Your task to perform on an android device: clear all cookies in the chrome app Image 0: 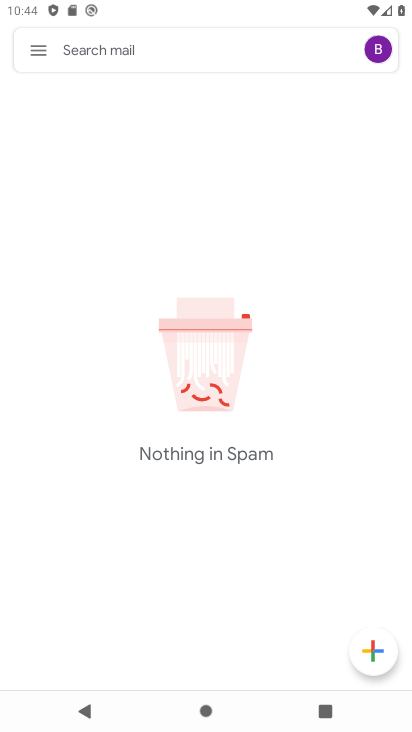
Step 0: press home button
Your task to perform on an android device: clear all cookies in the chrome app Image 1: 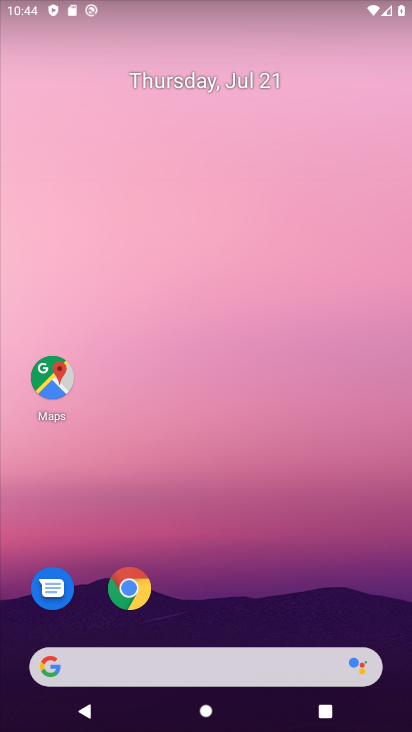
Step 1: drag from (264, 559) to (323, 0)
Your task to perform on an android device: clear all cookies in the chrome app Image 2: 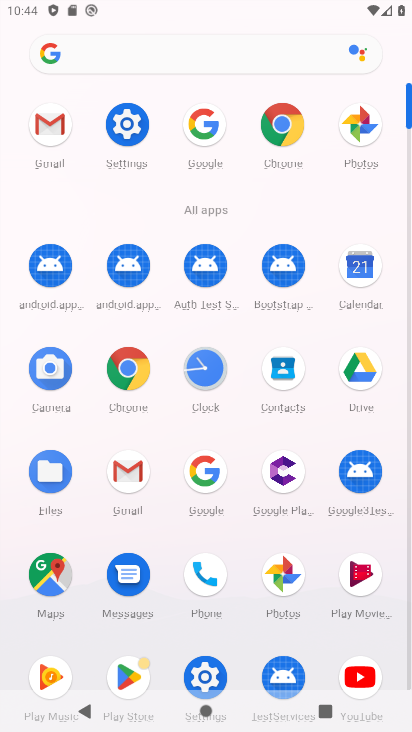
Step 2: click (291, 118)
Your task to perform on an android device: clear all cookies in the chrome app Image 3: 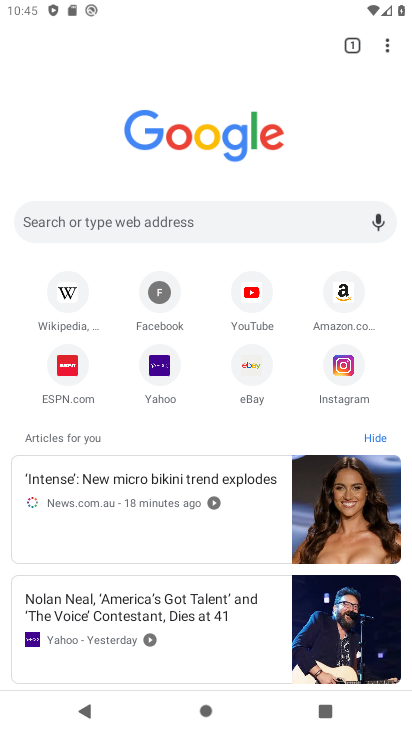
Step 3: drag from (382, 54) to (276, 273)
Your task to perform on an android device: clear all cookies in the chrome app Image 4: 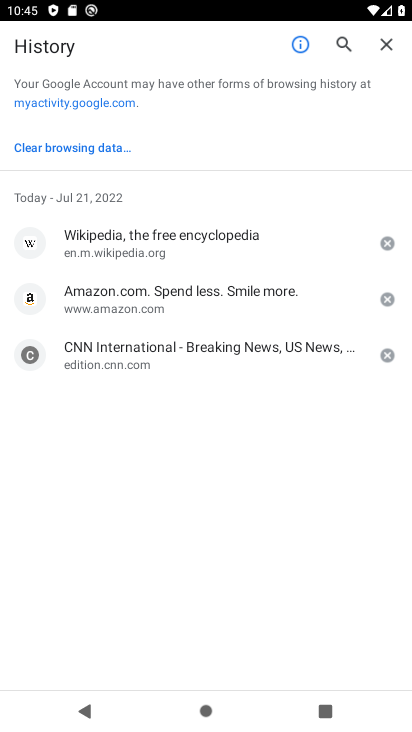
Step 4: click (80, 142)
Your task to perform on an android device: clear all cookies in the chrome app Image 5: 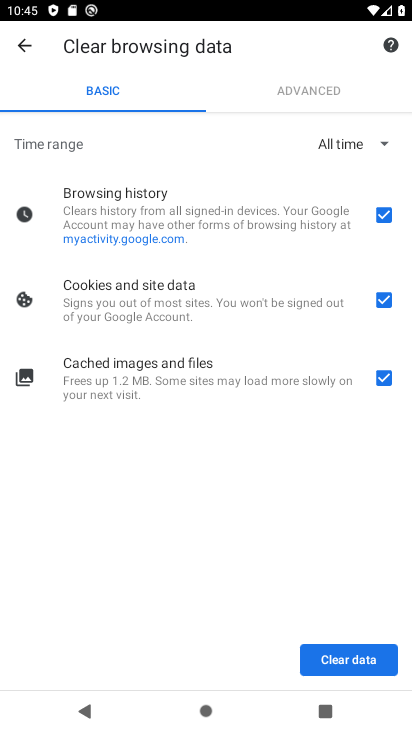
Step 5: click (379, 373)
Your task to perform on an android device: clear all cookies in the chrome app Image 6: 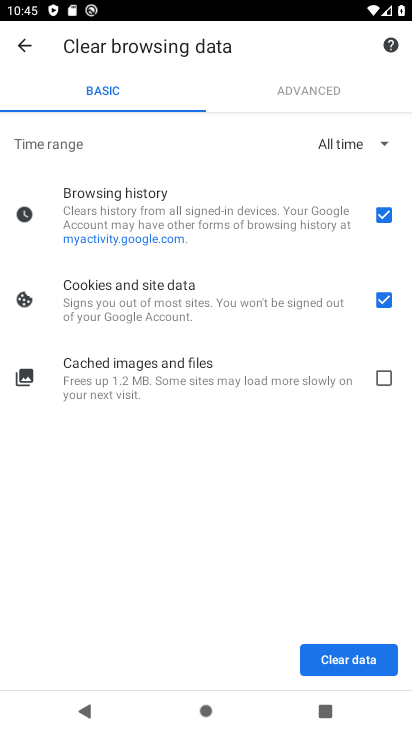
Step 6: click (394, 224)
Your task to perform on an android device: clear all cookies in the chrome app Image 7: 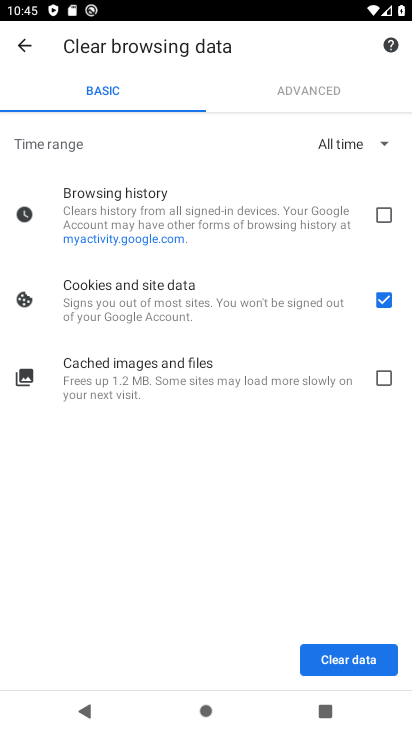
Step 7: click (347, 655)
Your task to perform on an android device: clear all cookies in the chrome app Image 8: 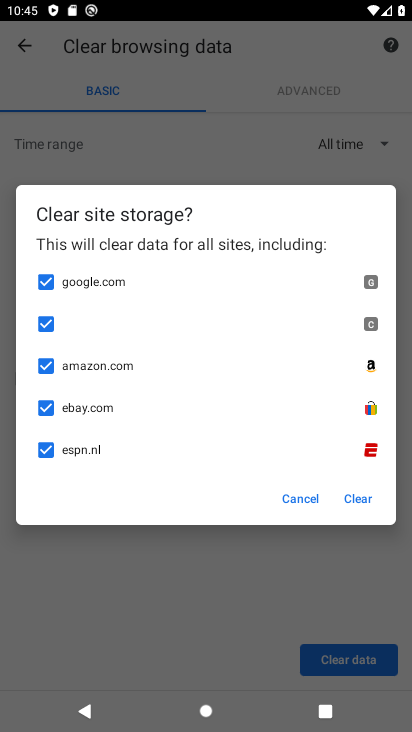
Step 8: click (361, 507)
Your task to perform on an android device: clear all cookies in the chrome app Image 9: 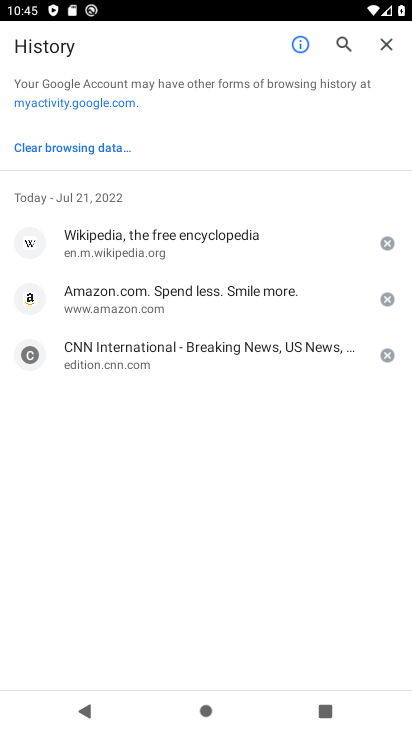
Step 9: task complete